Your task to perform on an android device: turn off smart reply in the gmail app Image 0: 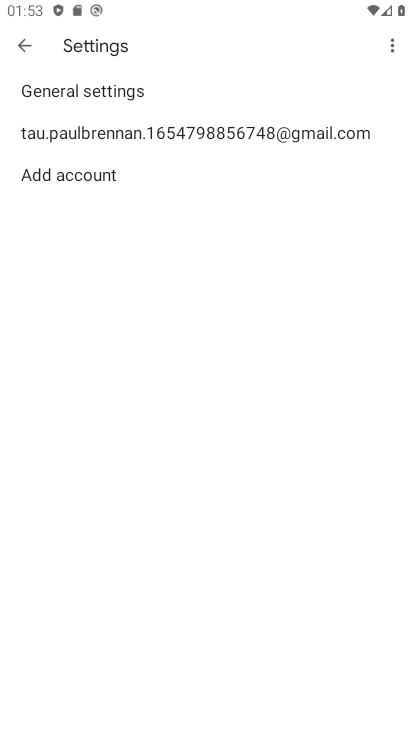
Step 0: press home button
Your task to perform on an android device: turn off smart reply in the gmail app Image 1: 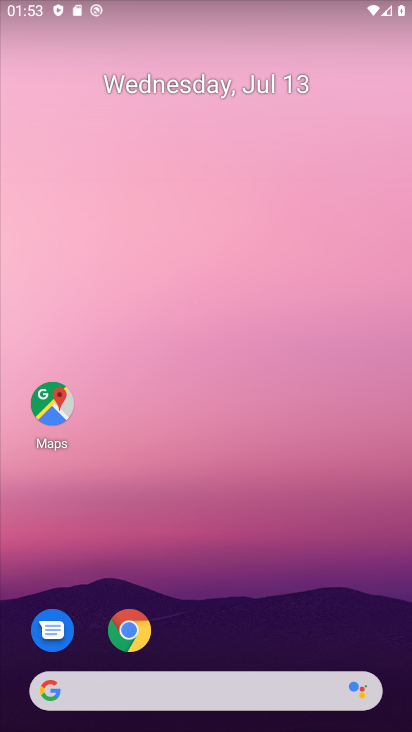
Step 1: drag from (207, 590) to (174, 226)
Your task to perform on an android device: turn off smart reply in the gmail app Image 2: 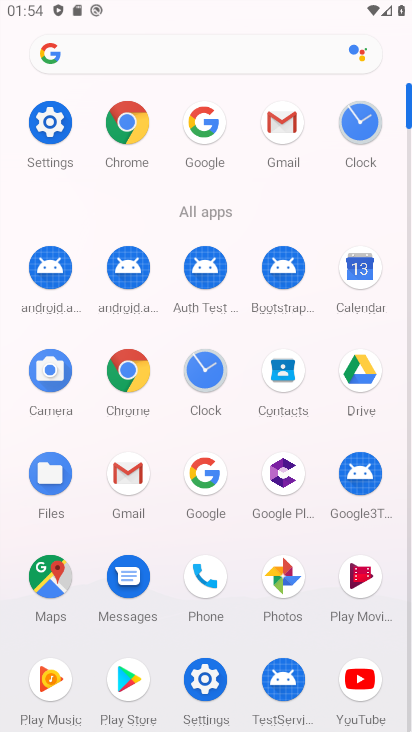
Step 2: click (261, 134)
Your task to perform on an android device: turn off smart reply in the gmail app Image 3: 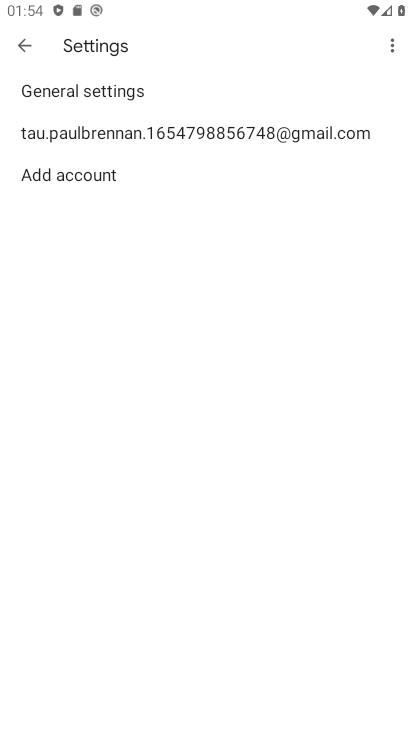
Step 3: click (65, 121)
Your task to perform on an android device: turn off smart reply in the gmail app Image 4: 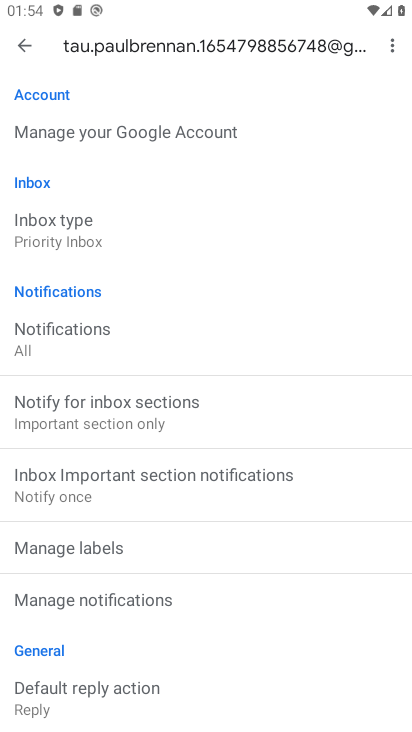
Step 4: drag from (183, 630) to (192, 253)
Your task to perform on an android device: turn off smart reply in the gmail app Image 5: 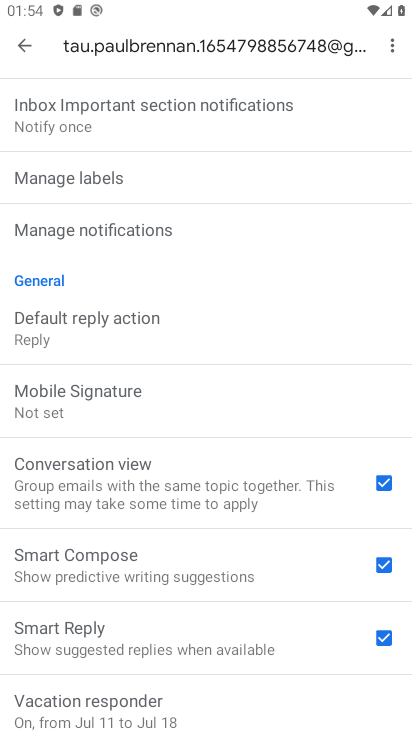
Step 5: click (380, 642)
Your task to perform on an android device: turn off smart reply in the gmail app Image 6: 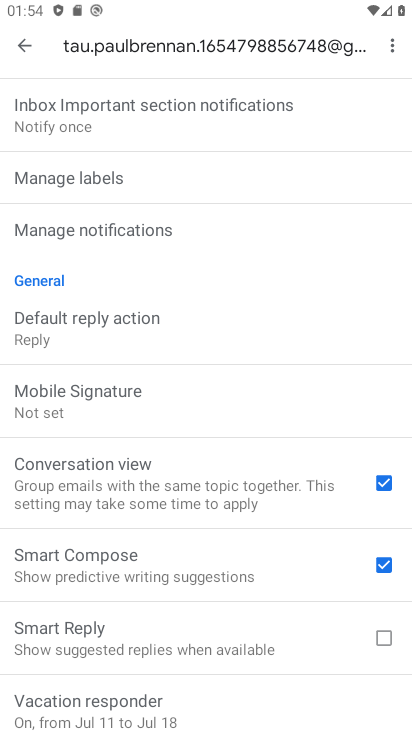
Step 6: task complete